Your task to perform on an android device: add a contact in the contacts app Image 0: 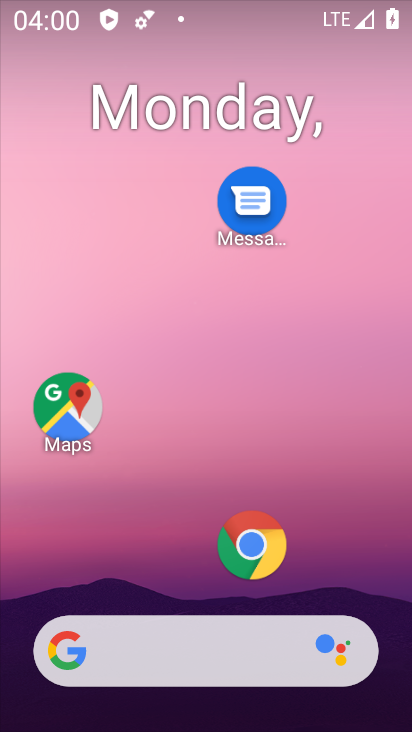
Step 0: drag from (183, 477) to (250, 105)
Your task to perform on an android device: add a contact in the contacts app Image 1: 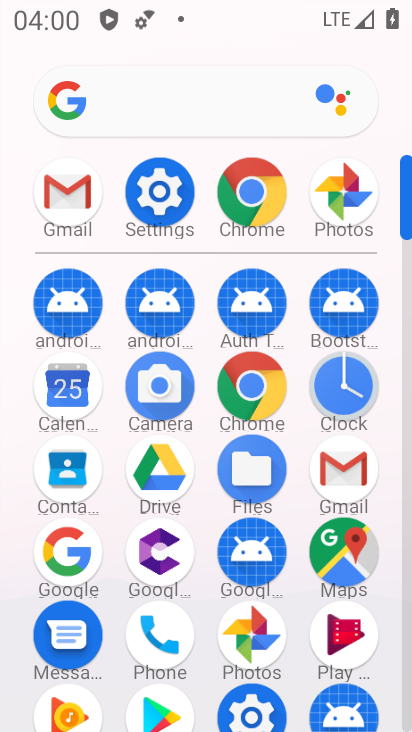
Step 1: click (70, 473)
Your task to perform on an android device: add a contact in the contacts app Image 2: 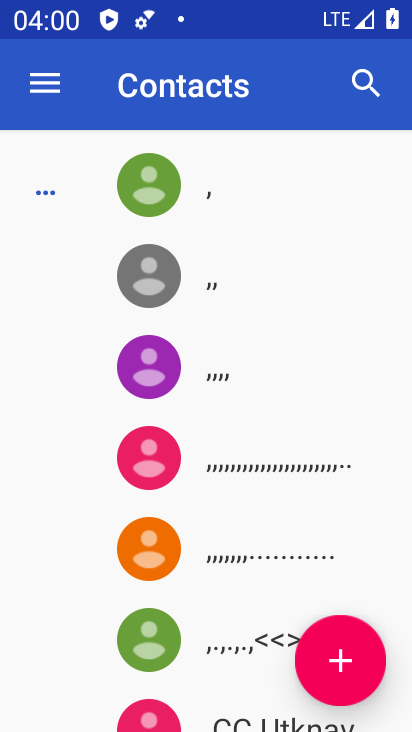
Step 2: click (334, 652)
Your task to perform on an android device: add a contact in the contacts app Image 3: 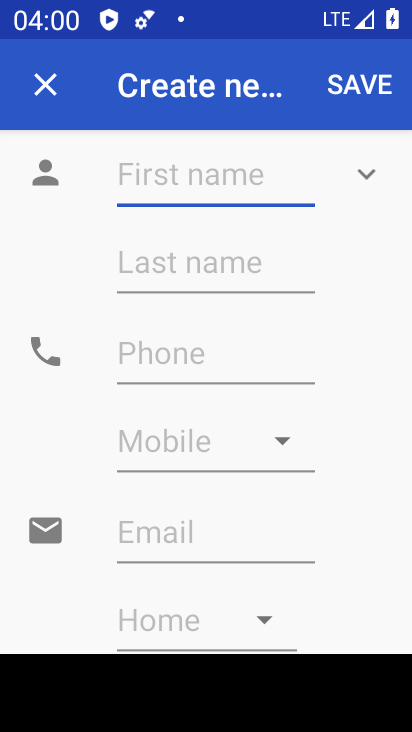
Step 3: click (156, 176)
Your task to perform on an android device: add a contact in the contacts app Image 4: 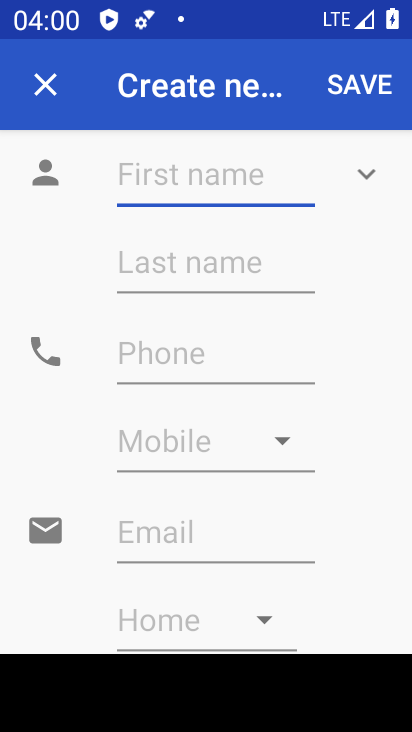
Step 4: type "vbvv"
Your task to perform on an android device: add a contact in the contacts app Image 5: 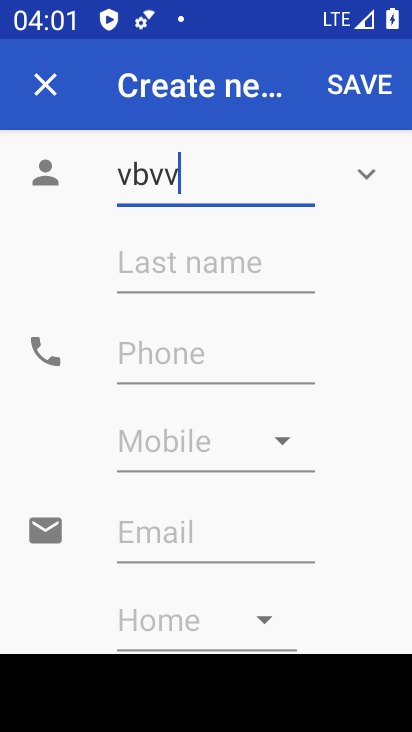
Step 5: click (186, 356)
Your task to perform on an android device: add a contact in the contacts app Image 6: 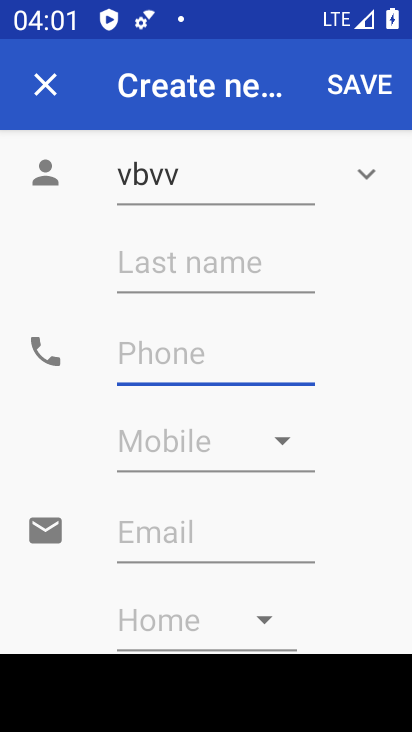
Step 6: type "7776"
Your task to perform on an android device: add a contact in the contacts app Image 7: 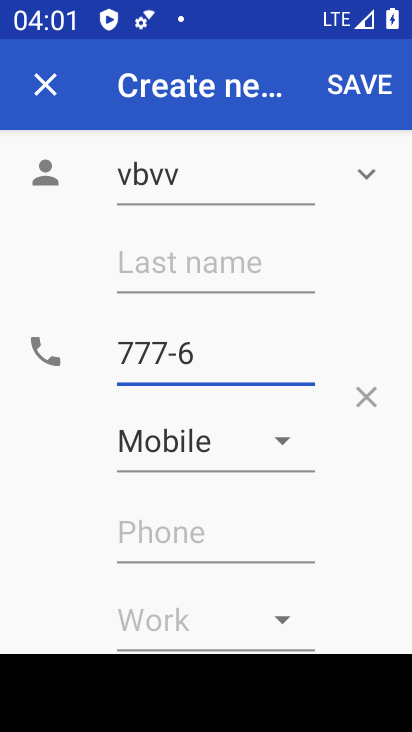
Step 7: click (373, 80)
Your task to perform on an android device: add a contact in the contacts app Image 8: 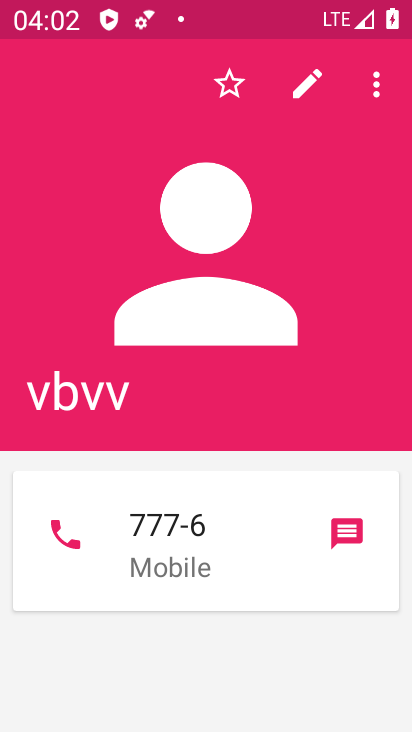
Step 8: task complete